Your task to perform on an android device: change timer sound Image 0: 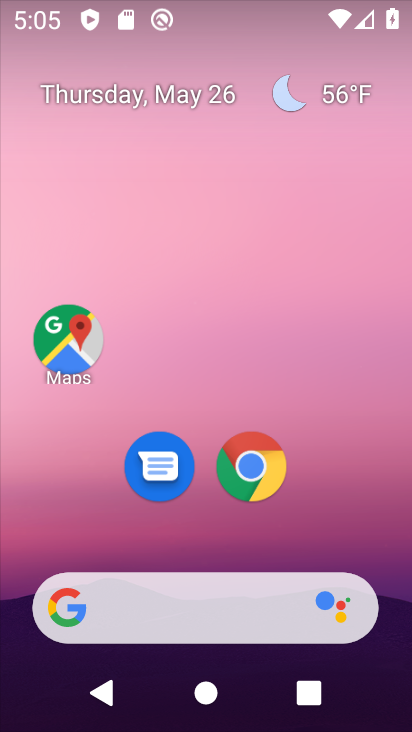
Step 0: drag from (309, 516) to (386, 94)
Your task to perform on an android device: change timer sound Image 1: 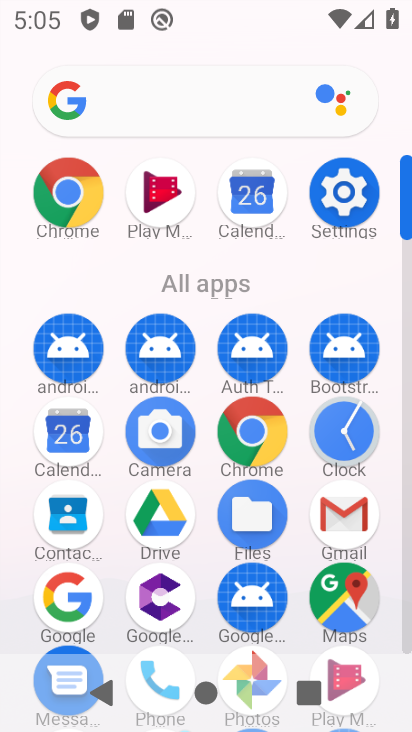
Step 1: click (353, 437)
Your task to perform on an android device: change timer sound Image 2: 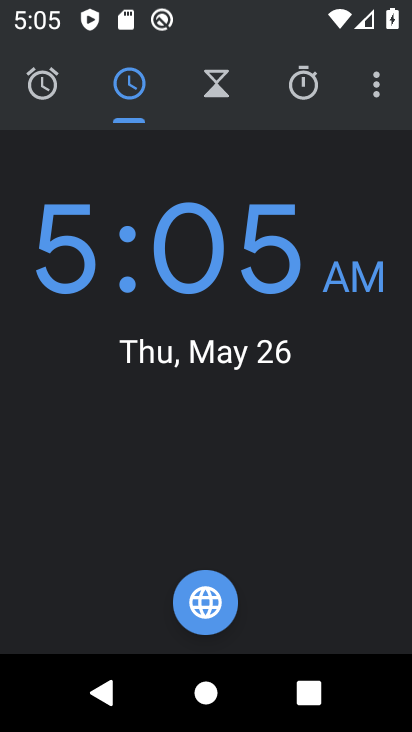
Step 2: click (369, 86)
Your task to perform on an android device: change timer sound Image 3: 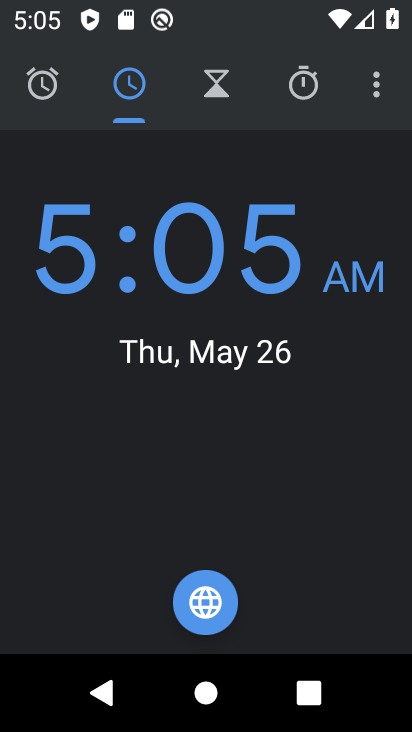
Step 3: click (373, 92)
Your task to perform on an android device: change timer sound Image 4: 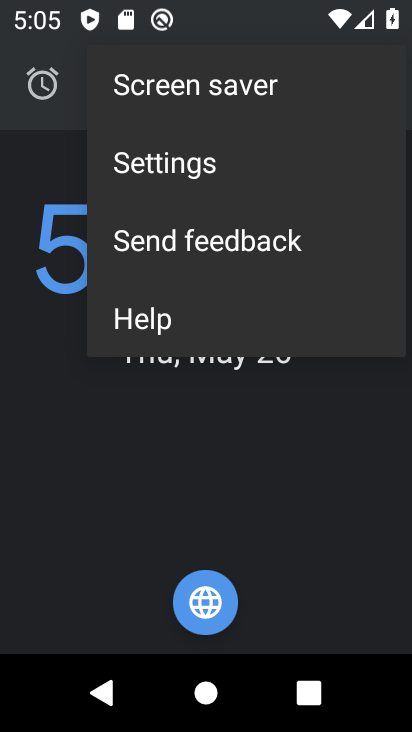
Step 4: click (197, 161)
Your task to perform on an android device: change timer sound Image 5: 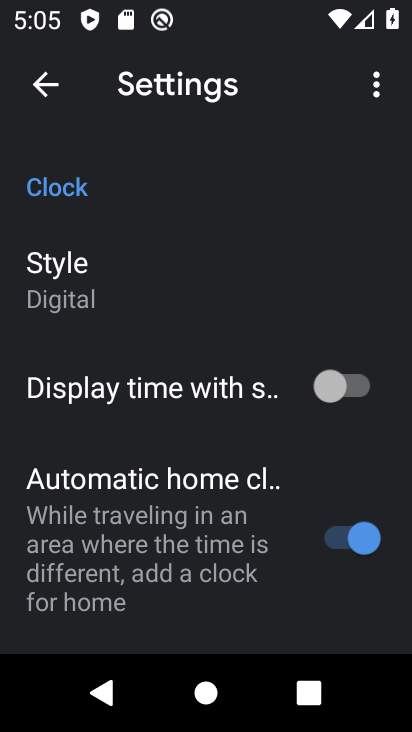
Step 5: drag from (206, 591) to (240, 229)
Your task to perform on an android device: change timer sound Image 6: 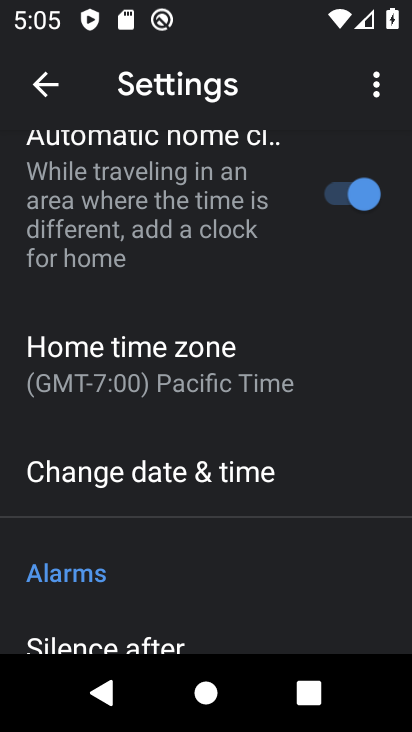
Step 6: click (226, 479)
Your task to perform on an android device: change timer sound Image 7: 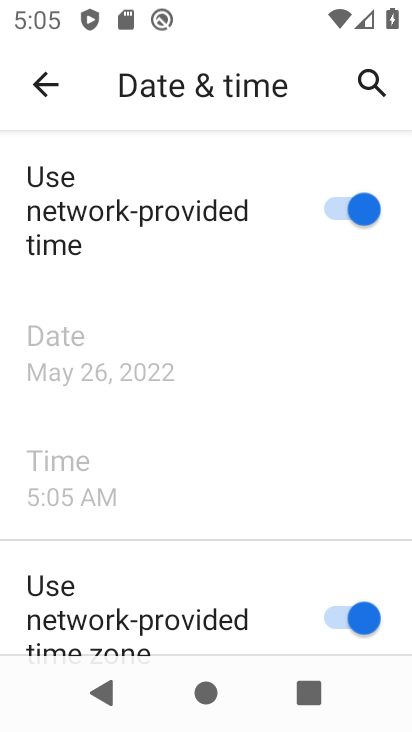
Step 7: press back button
Your task to perform on an android device: change timer sound Image 8: 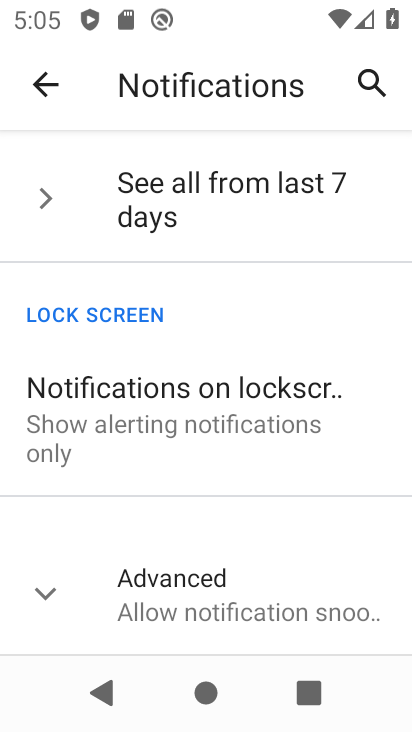
Step 8: press home button
Your task to perform on an android device: change timer sound Image 9: 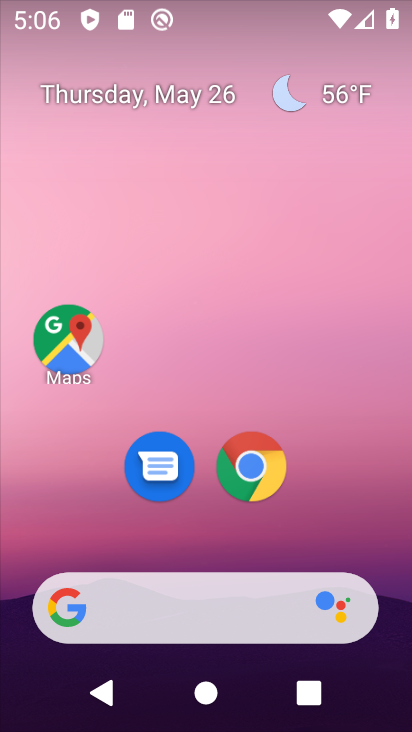
Step 9: drag from (295, 537) to (328, 185)
Your task to perform on an android device: change timer sound Image 10: 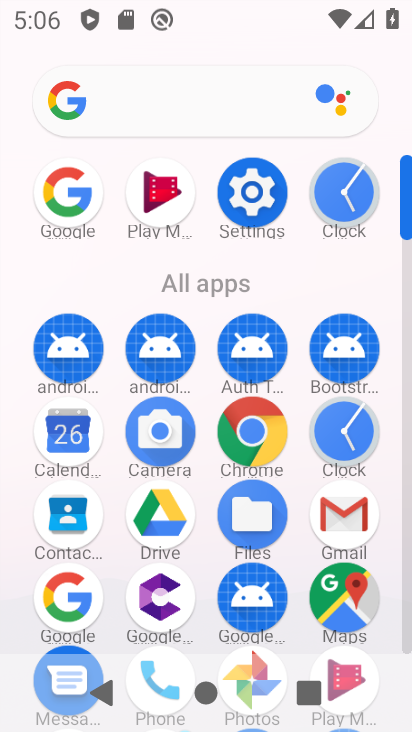
Step 10: click (341, 186)
Your task to perform on an android device: change timer sound Image 11: 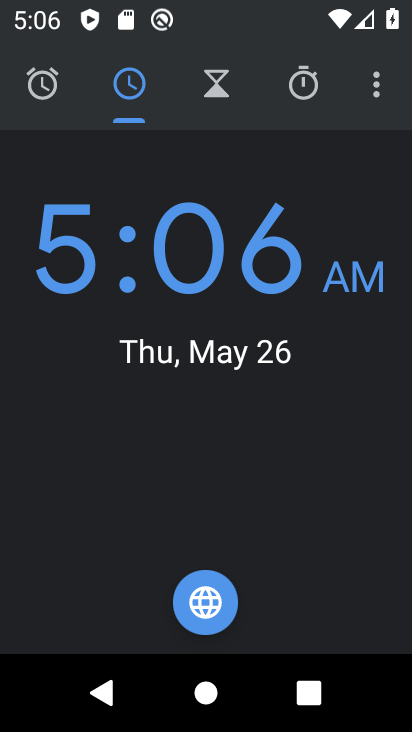
Step 11: click (377, 93)
Your task to perform on an android device: change timer sound Image 12: 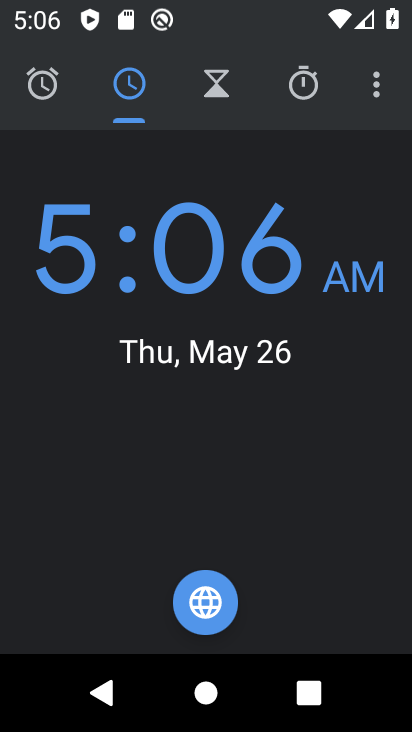
Step 12: click (377, 83)
Your task to perform on an android device: change timer sound Image 13: 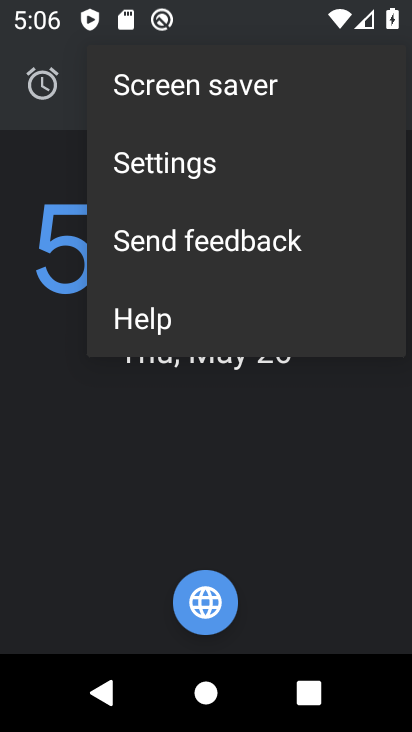
Step 13: click (179, 162)
Your task to perform on an android device: change timer sound Image 14: 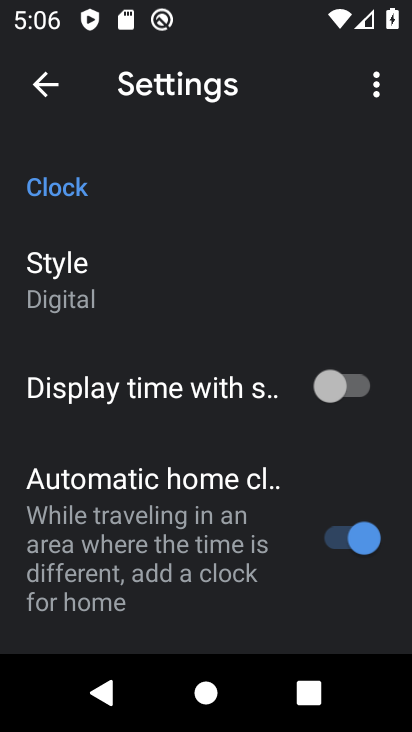
Step 14: drag from (292, 549) to (316, 207)
Your task to perform on an android device: change timer sound Image 15: 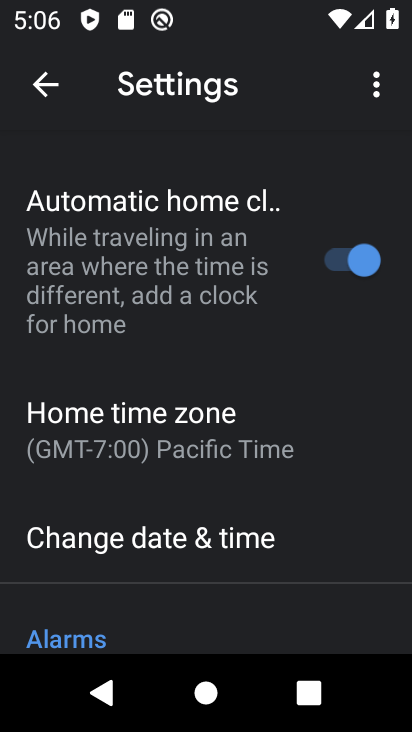
Step 15: drag from (304, 575) to (317, 145)
Your task to perform on an android device: change timer sound Image 16: 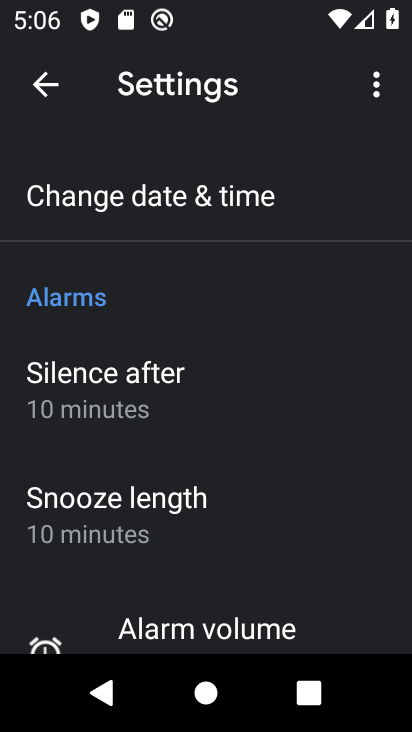
Step 16: drag from (258, 546) to (312, 162)
Your task to perform on an android device: change timer sound Image 17: 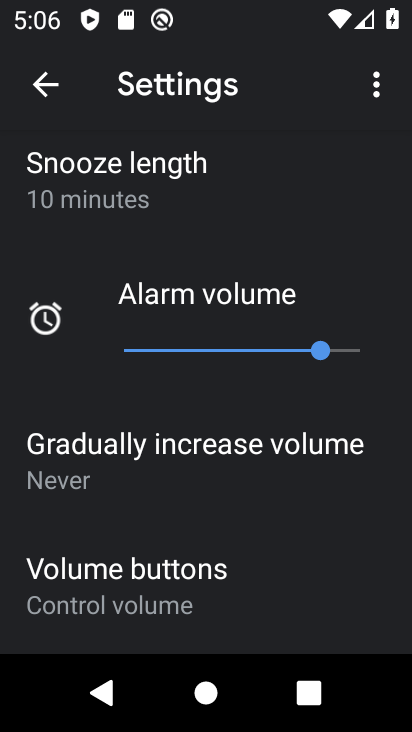
Step 17: drag from (268, 545) to (301, 200)
Your task to perform on an android device: change timer sound Image 18: 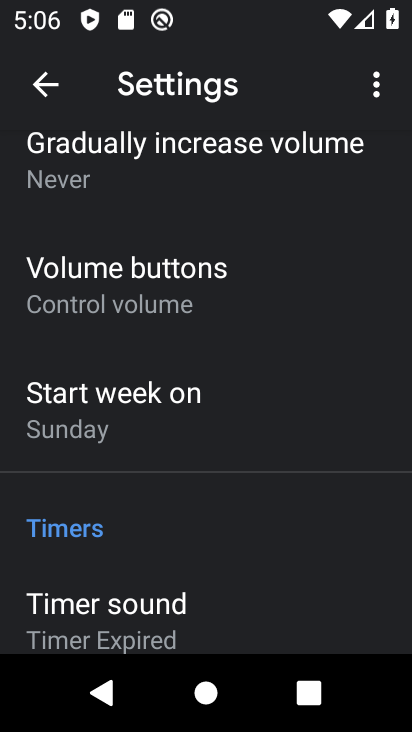
Step 18: drag from (246, 524) to (283, 189)
Your task to perform on an android device: change timer sound Image 19: 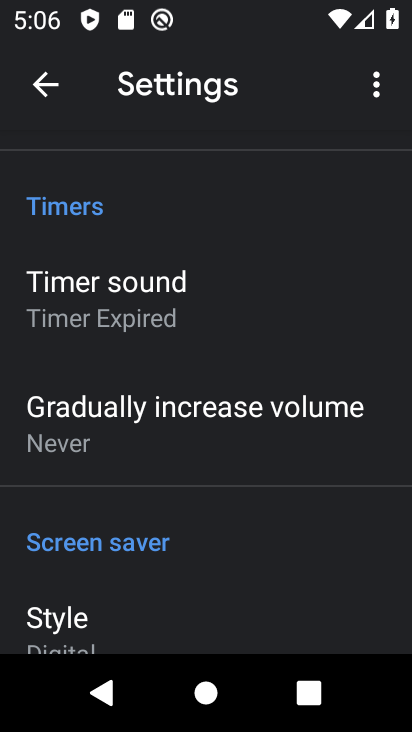
Step 19: click (75, 305)
Your task to perform on an android device: change timer sound Image 20: 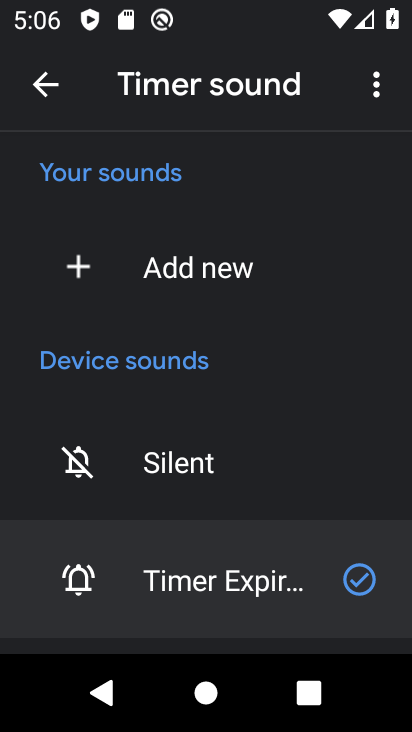
Step 20: drag from (221, 585) to (292, 254)
Your task to perform on an android device: change timer sound Image 21: 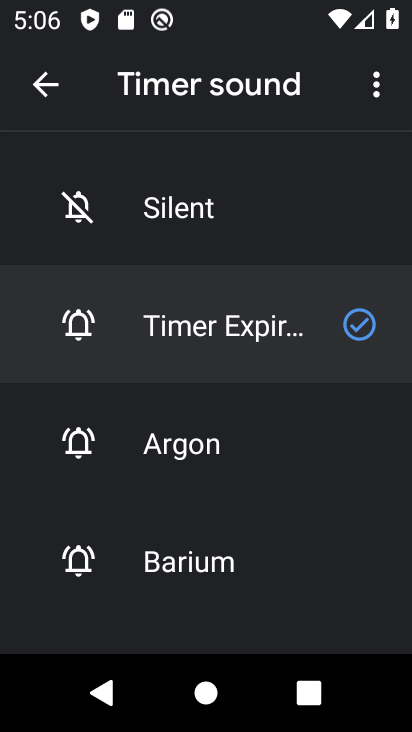
Step 21: click (153, 447)
Your task to perform on an android device: change timer sound Image 22: 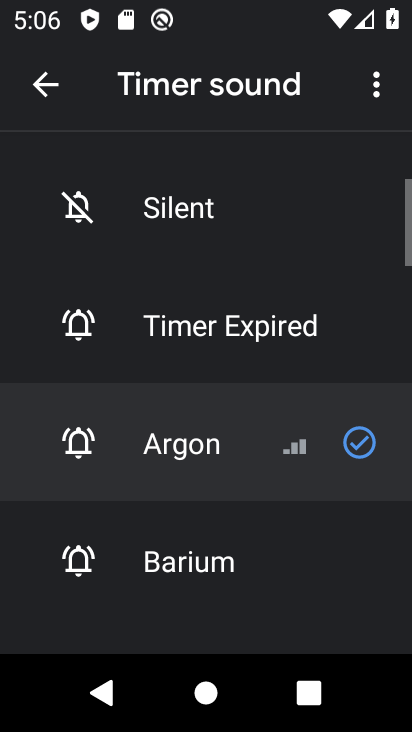
Step 22: click (349, 440)
Your task to perform on an android device: change timer sound Image 23: 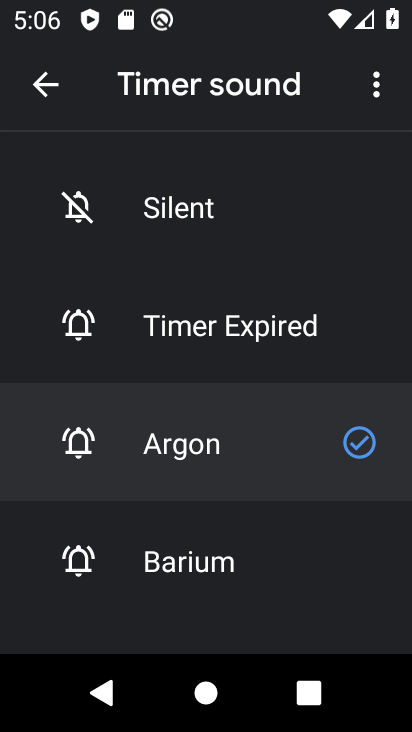
Step 23: task complete